Your task to perform on an android device: see tabs open on other devices in the chrome app Image 0: 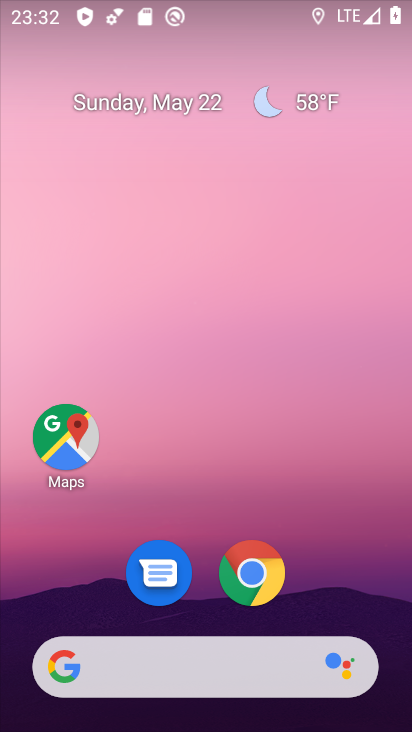
Step 0: drag from (210, 578) to (270, 65)
Your task to perform on an android device: see tabs open on other devices in the chrome app Image 1: 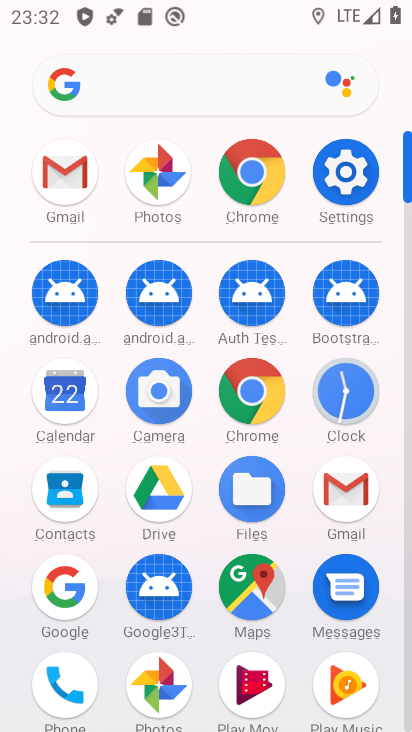
Step 1: click (261, 388)
Your task to perform on an android device: see tabs open on other devices in the chrome app Image 2: 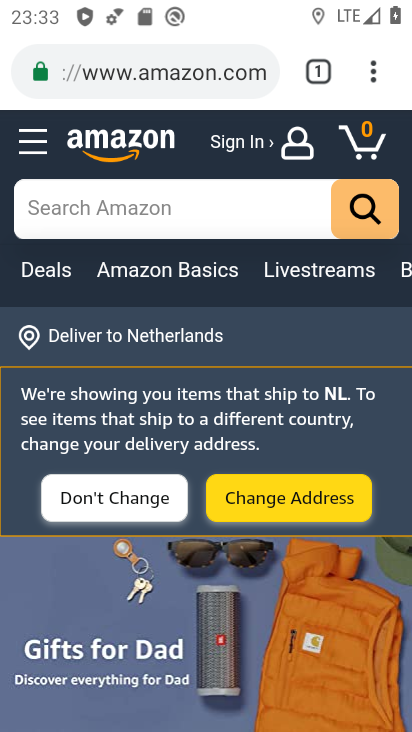
Step 2: click (376, 67)
Your task to perform on an android device: see tabs open on other devices in the chrome app Image 3: 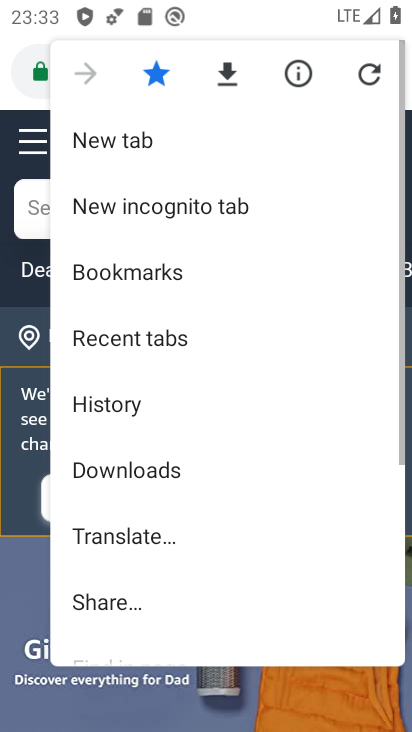
Step 3: click (148, 341)
Your task to perform on an android device: see tabs open on other devices in the chrome app Image 4: 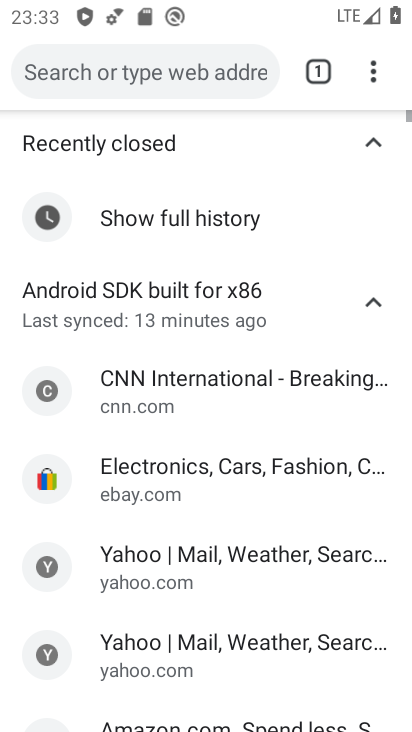
Step 4: task complete